Your task to perform on an android device: Empty the shopping cart on ebay.com. Search for "duracell triple a" on ebay.com, select the first entry, and add it to the cart. Image 0: 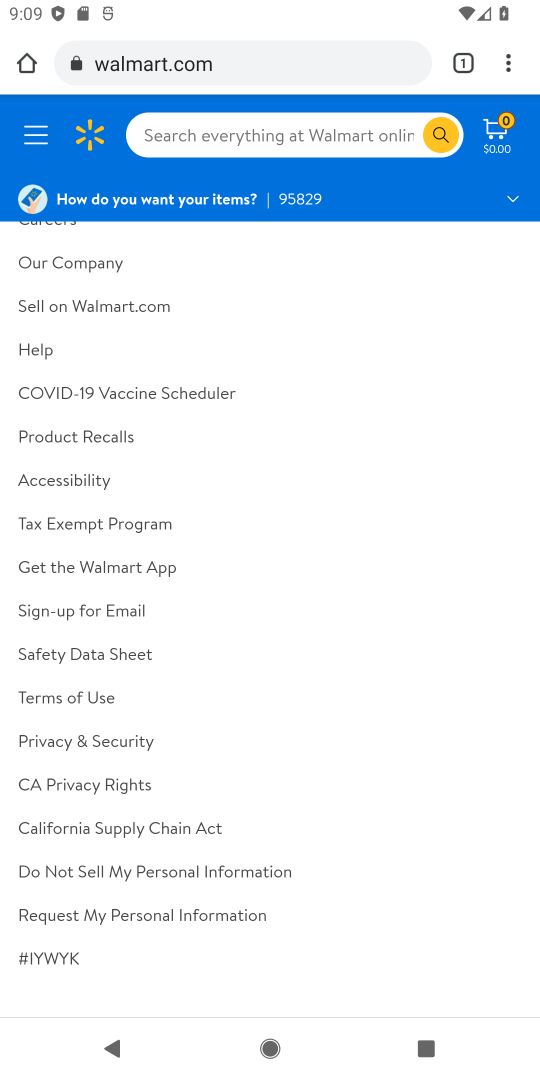
Step 0: click (256, 74)
Your task to perform on an android device: Empty the shopping cart on ebay.com. Search for "duracell triple a" on ebay.com, select the first entry, and add it to the cart. Image 1: 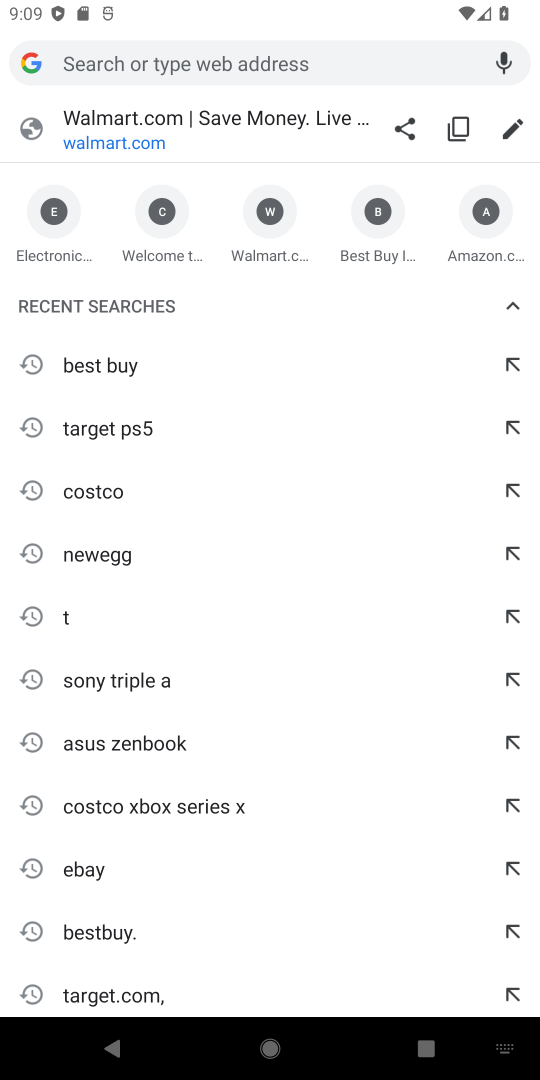
Step 1: type "ebay.com"
Your task to perform on an android device: Empty the shopping cart on ebay.com. Search for "duracell triple a" on ebay.com, select the first entry, and add it to the cart. Image 2: 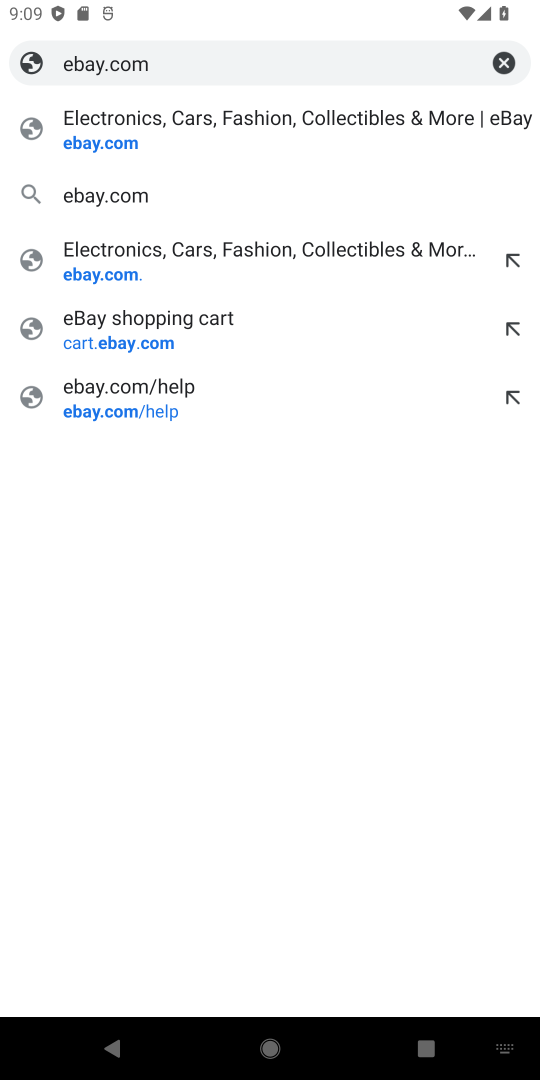
Step 2: click (167, 119)
Your task to perform on an android device: Empty the shopping cart on ebay.com. Search for "duracell triple a" on ebay.com, select the first entry, and add it to the cart. Image 3: 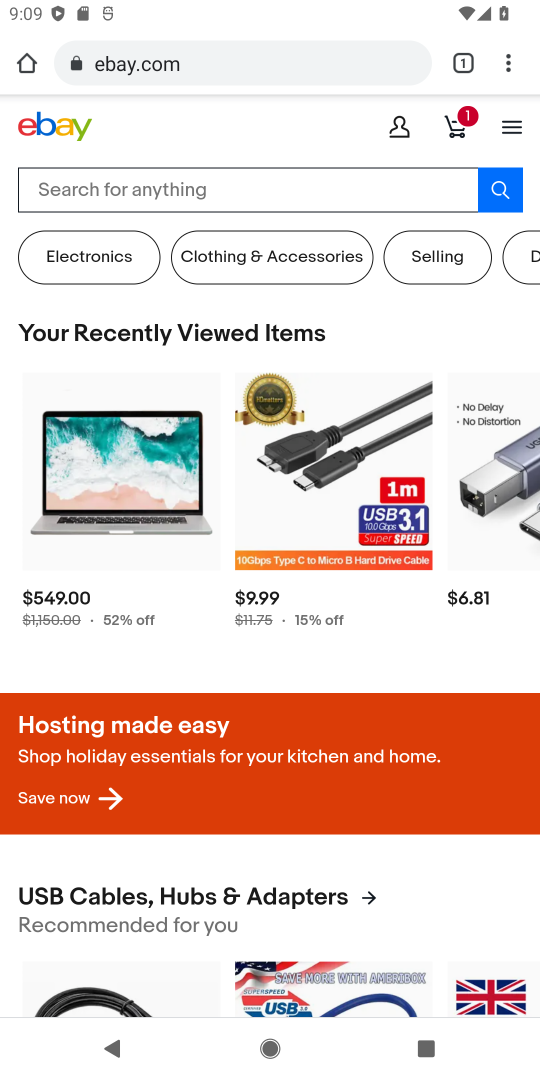
Step 3: click (185, 198)
Your task to perform on an android device: Empty the shopping cart on ebay.com. Search for "duracell triple a" on ebay.com, select the first entry, and add it to the cart. Image 4: 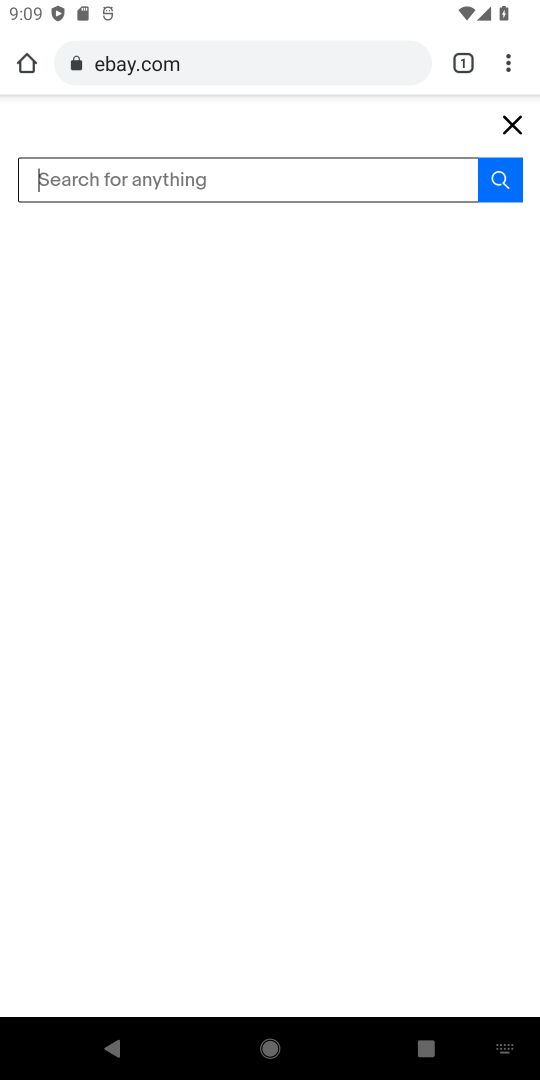
Step 4: click (130, 194)
Your task to perform on an android device: Empty the shopping cart on ebay.com. Search for "duracell triple a" on ebay.com, select the first entry, and add it to the cart. Image 5: 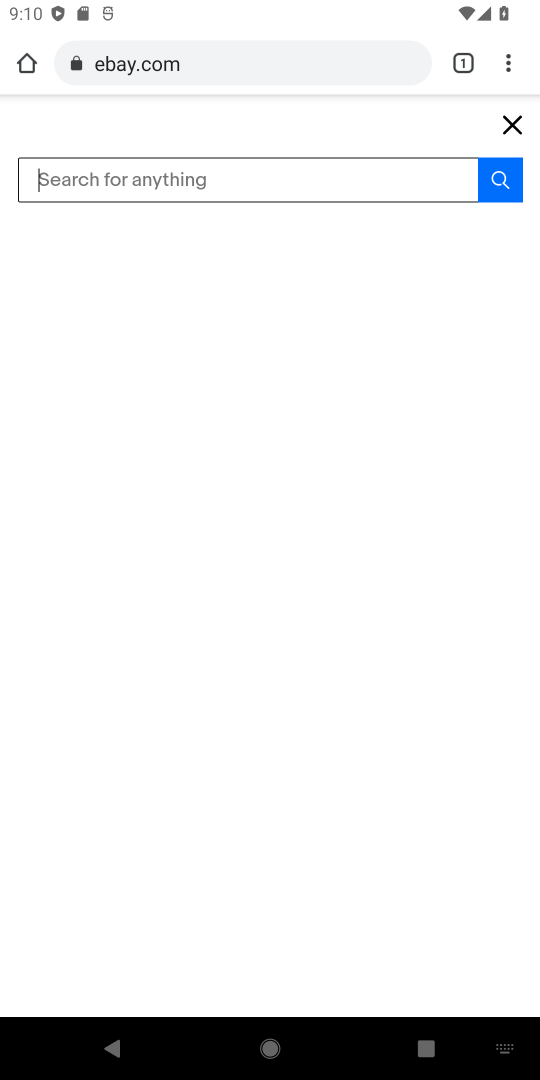
Step 5: type "duracell triple a"
Your task to perform on an android device: Empty the shopping cart on ebay.com. Search for "duracell triple a" on ebay.com, select the first entry, and add it to the cart. Image 6: 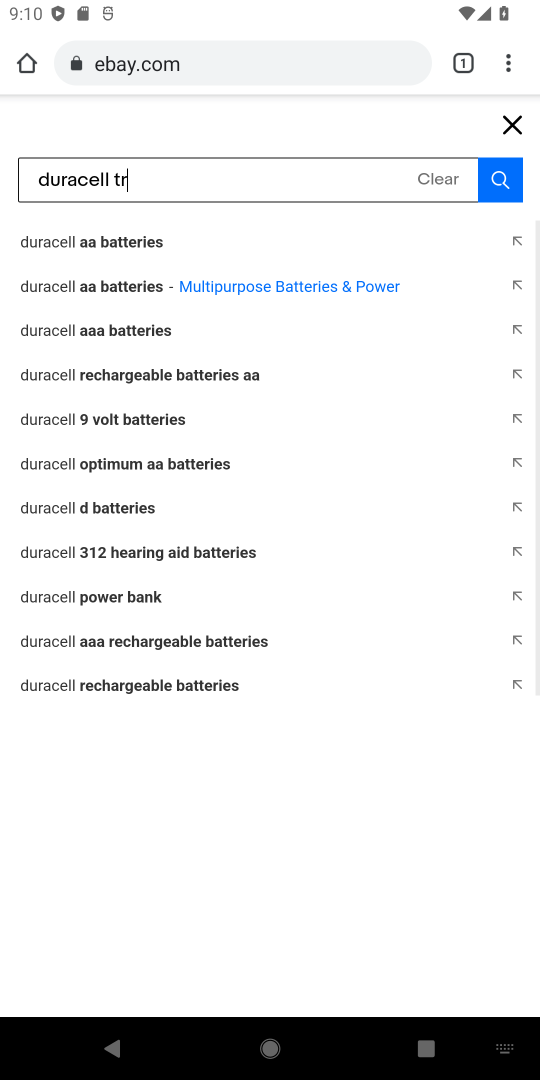
Step 6: type ""
Your task to perform on an android device: Empty the shopping cart on ebay.com. Search for "duracell triple a" on ebay.com, select the first entry, and add it to the cart. Image 7: 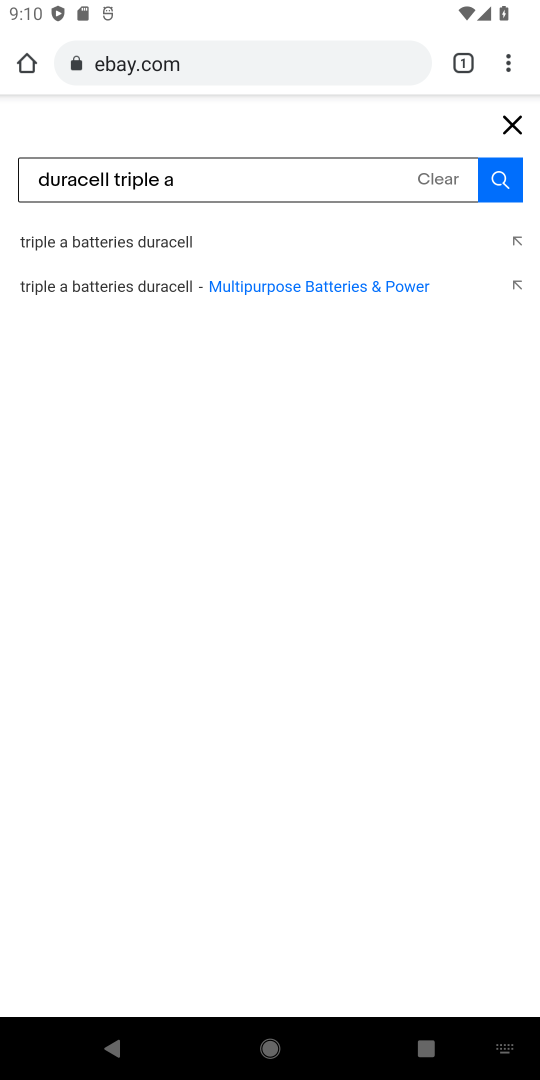
Step 7: click (222, 237)
Your task to perform on an android device: Empty the shopping cart on ebay.com. Search for "duracell triple a" on ebay.com, select the first entry, and add it to the cart. Image 8: 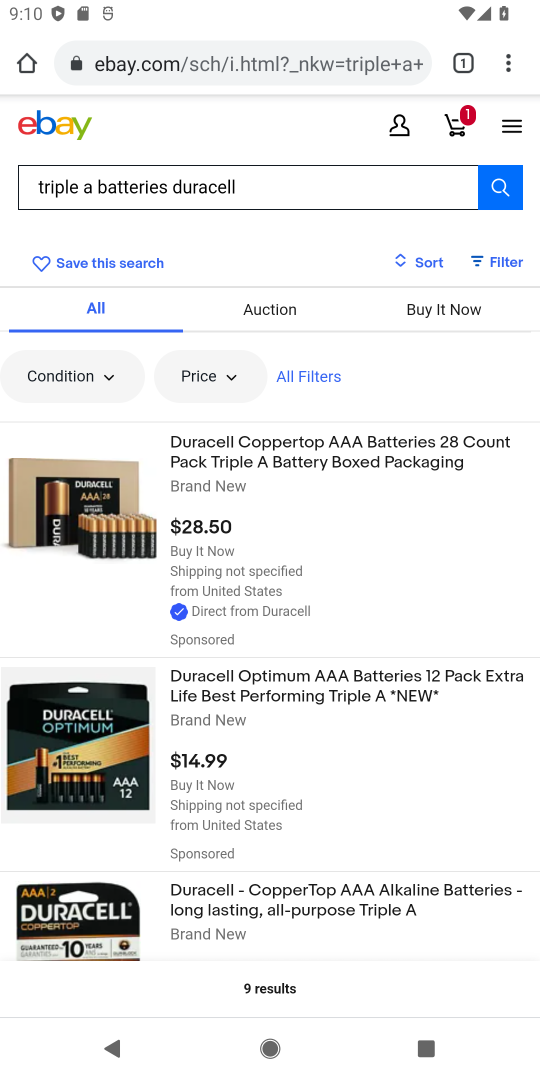
Step 8: click (241, 428)
Your task to perform on an android device: Empty the shopping cart on ebay.com. Search for "duracell triple a" on ebay.com, select the first entry, and add it to the cart. Image 9: 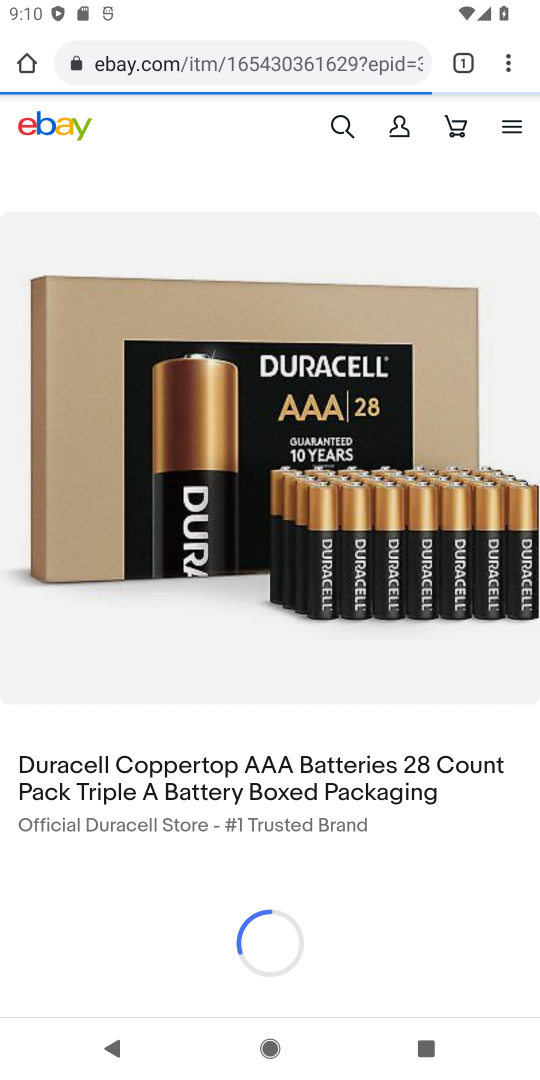
Step 9: click (256, 471)
Your task to perform on an android device: Empty the shopping cart on ebay.com. Search for "duracell triple a" on ebay.com, select the first entry, and add it to the cart. Image 10: 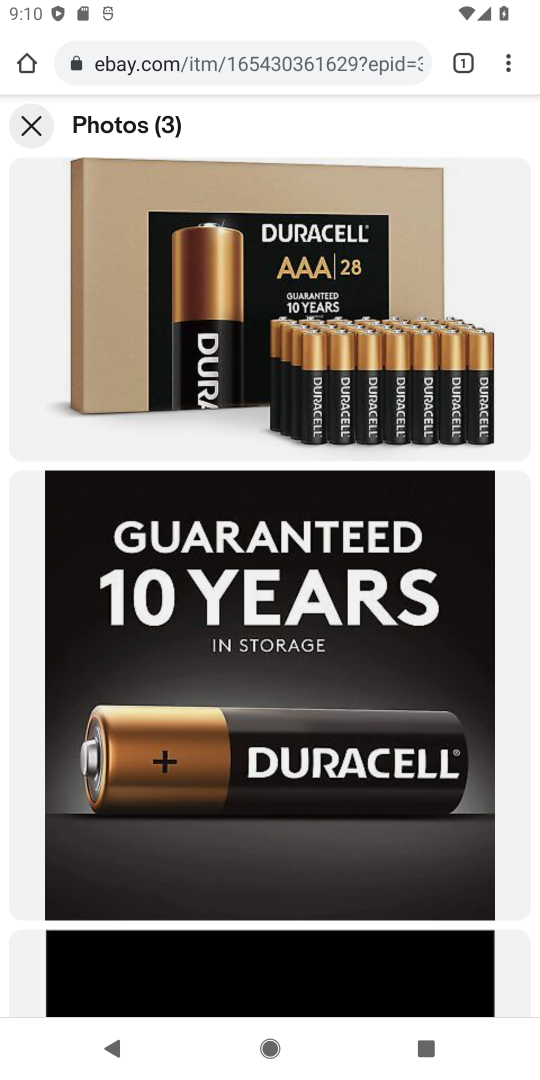
Step 10: drag from (391, 642) to (439, 366)
Your task to perform on an android device: Empty the shopping cart on ebay.com. Search for "duracell triple a" on ebay.com, select the first entry, and add it to the cart. Image 11: 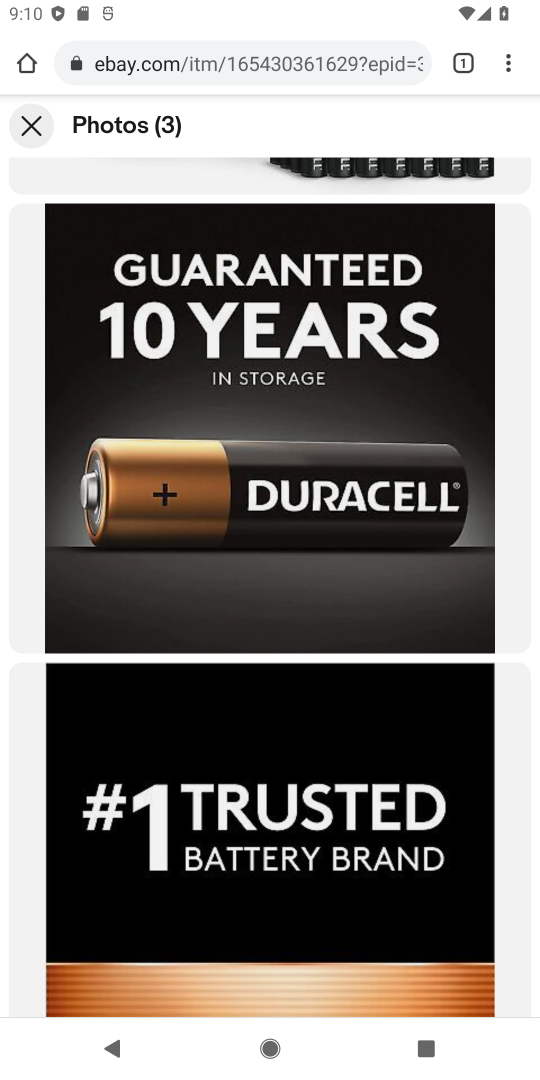
Step 11: drag from (406, 406) to (350, 860)
Your task to perform on an android device: Empty the shopping cart on ebay.com. Search for "duracell triple a" on ebay.com, select the first entry, and add it to the cart. Image 12: 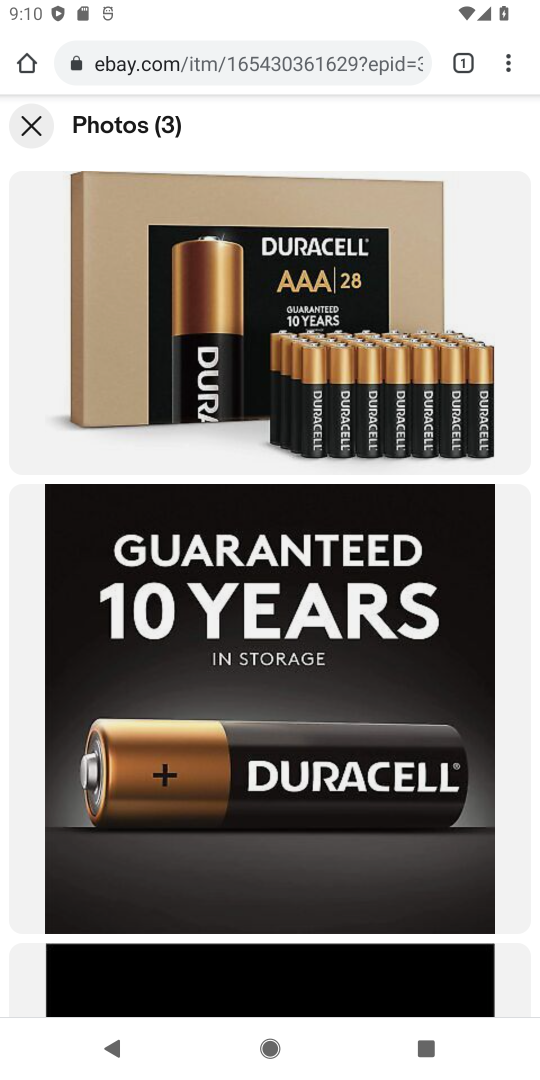
Step 12: drag from (324, 459) to (278, 865)
Your task to perform on an android device: Empty the shopping cart on ebay.com. Search for "duracell triple a" on ebay.com, select the first entry, and add it to the cart. Image 13: 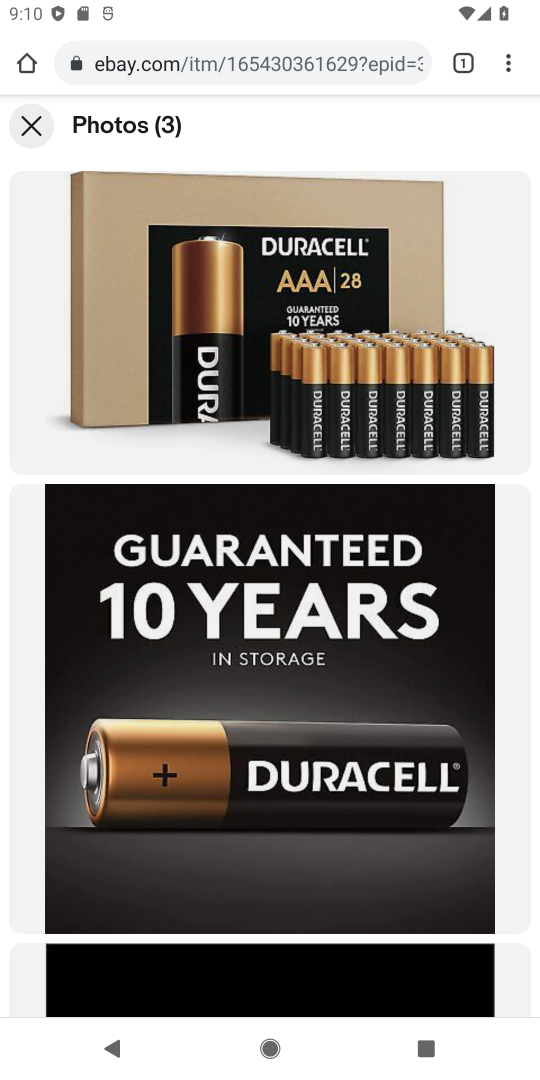
Step 13: drag from (300, 487) to (287, 850)
Your task to perform on an android device: Empty the shopping cart on ebay.com. Search for "duracell triple a" on ebay.com, select the first entry, and add it to the cart. Image 14: 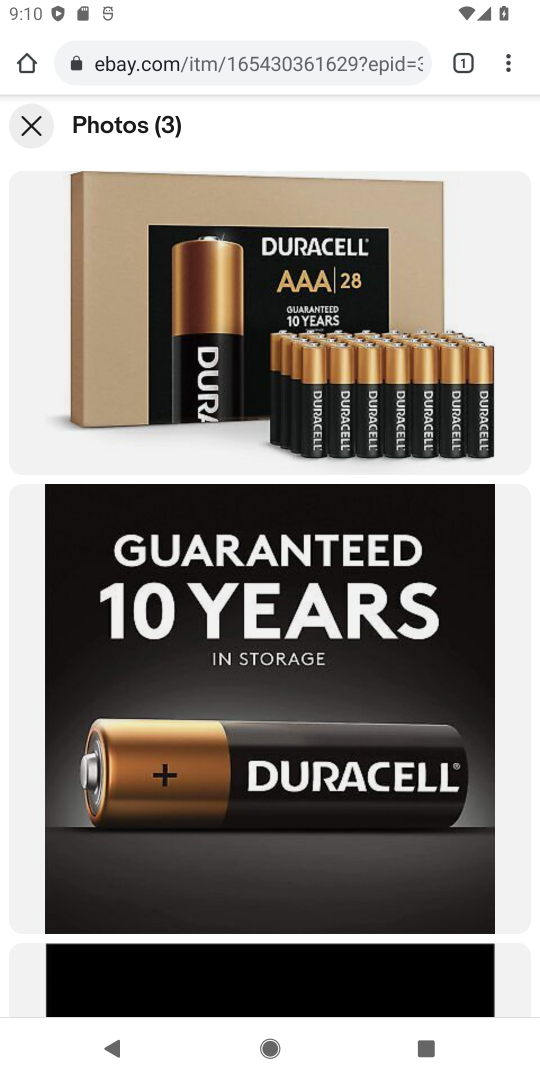
Step 14: drag from (295, 606) to (292, 784)
Your task to perform on an android device: Empty the shopping cart on ebay.com. Search for "duracell triple a" on ebay.com, select the first entry, and add it to the cart. Image 15: 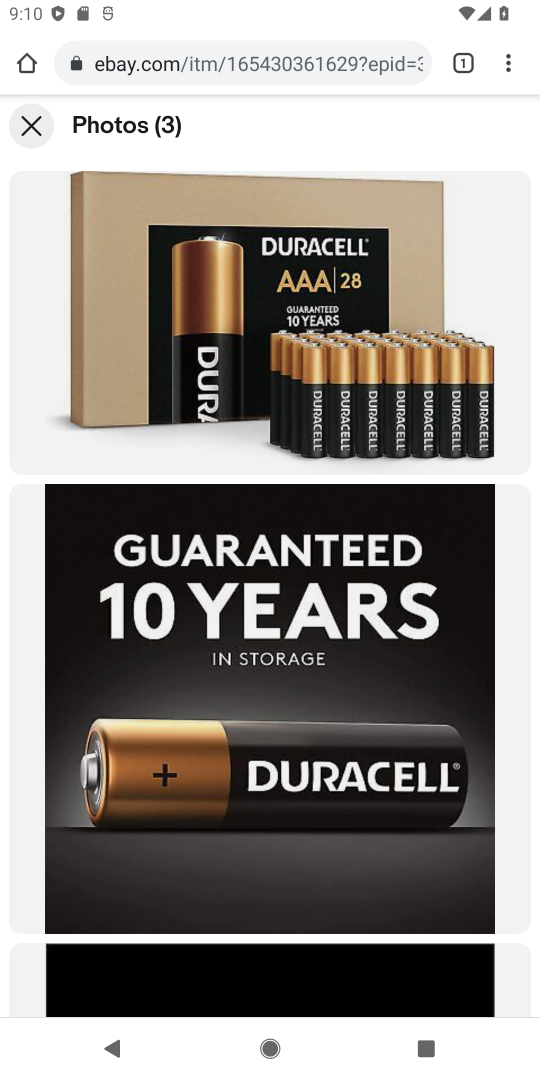
Step 15: drag from (331, 599) to (323, 743)
Your task to perform on an android device: Empty the shopping cart on ebay.com. Search for "duracell triple a" on ebay.com, select the first entry, and add it to the cart. Image 16: 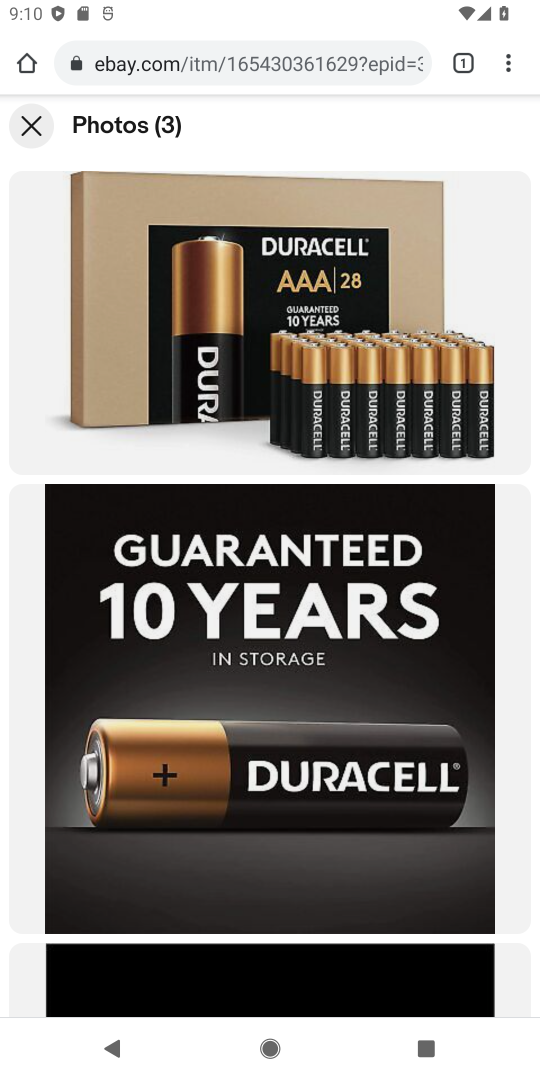
Step 16: click (40, 125)
Your task to perform on an android device: Empty the shopping cart on ebay.com. Search for "duracell triple a" on ebay.com, select the first entry, and add it to the cart. Image 17: 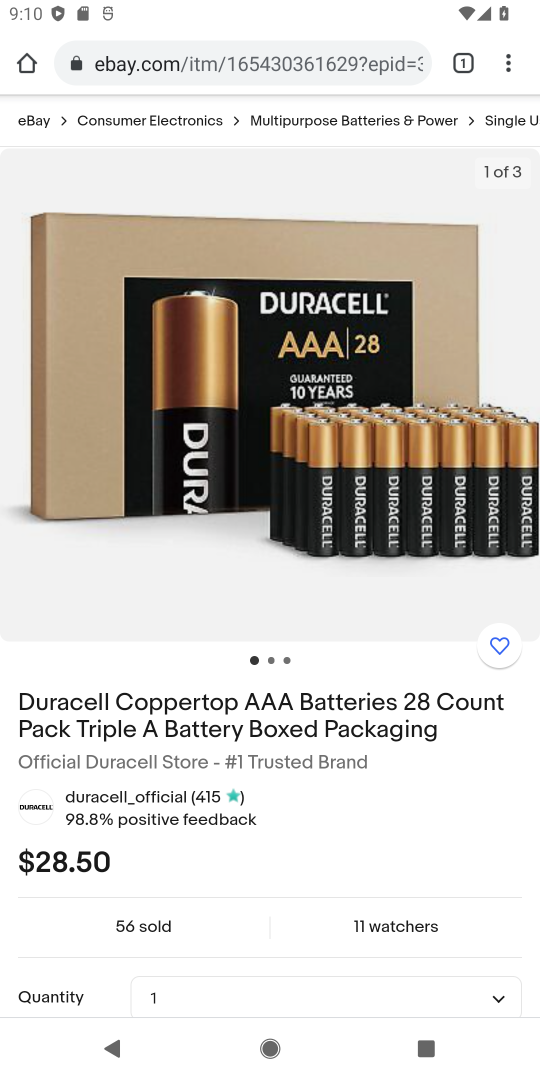
Step 17: drag from (210, 754) to (298, 349)
Your task to perform on an android device: Empty the shopping cart on ebay.com. Search for "duracell triple a" on ebay.com, select the first entry, and add it to the cart. Image 18: 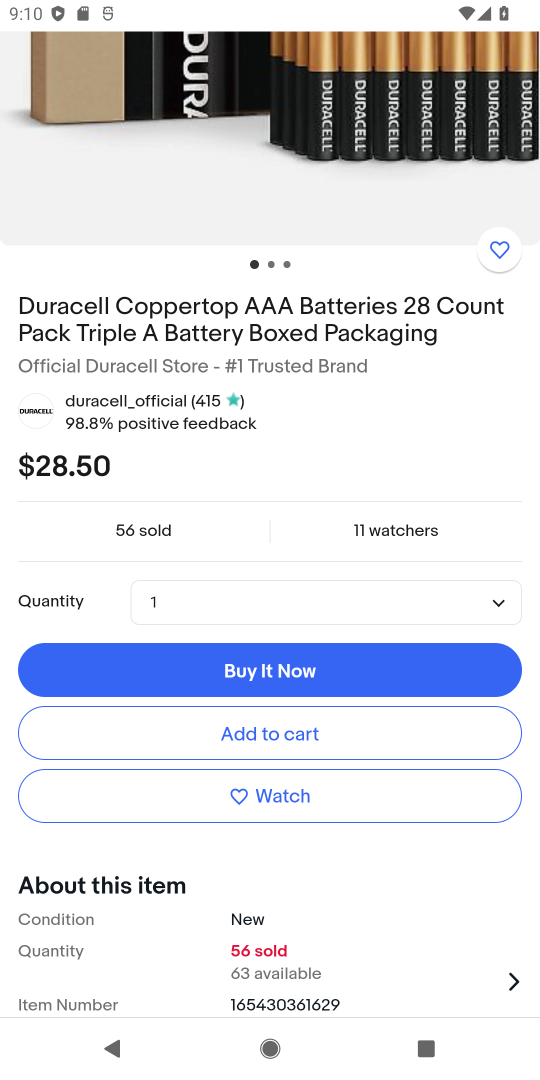
Step 18: click (208, 796)
Your task to perform on an android device: Empty the shopping cart on ebay.com. Search for "duracell triple a" on ebay.com, select the first entry, and add it to the cart. Image 19: 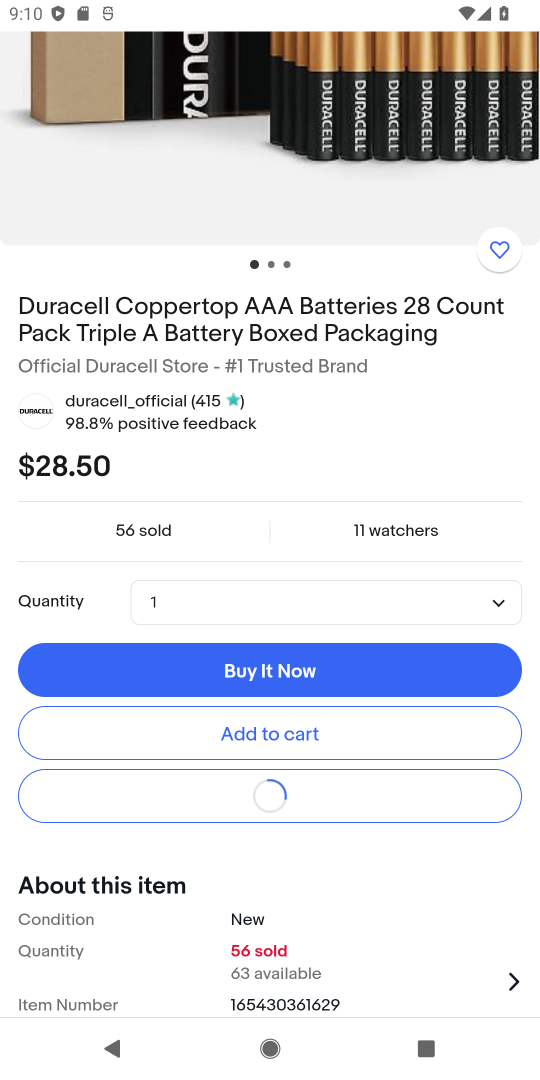
Step 19: click (220, 724)
Your task to perform on an android device: Empty the shopping cart on ebay.com. Search for "duracell triple a" on ebay.com, select the first entry, and add it to the cart. Image 20: 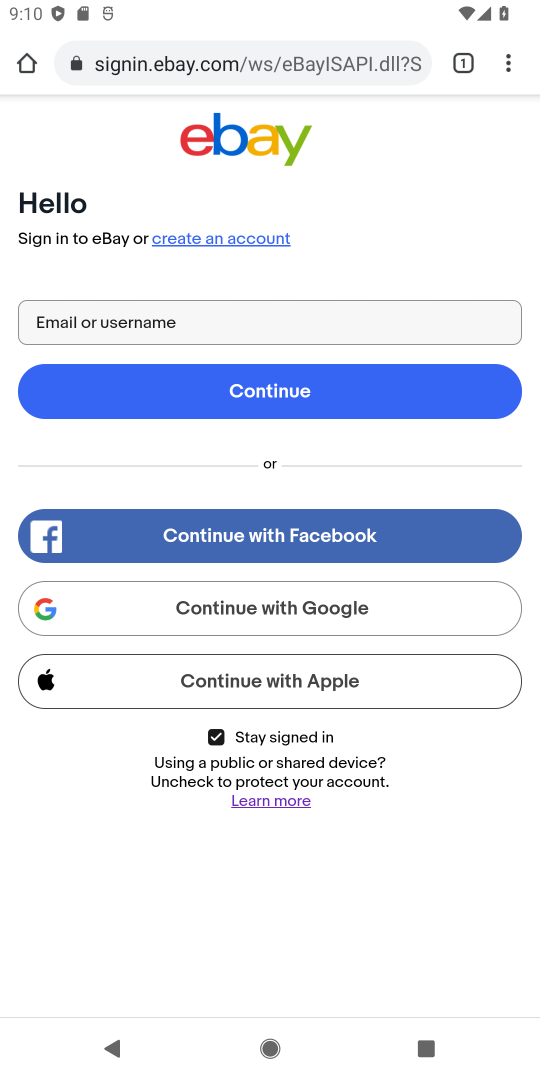
Step 20: click (241, 614)
Your task to perform on an android device: Empty the shopping cart on ebay.com. Search for "duracell triple a" on ebay.com, select the first entry, and add it to the cart. Image 21: 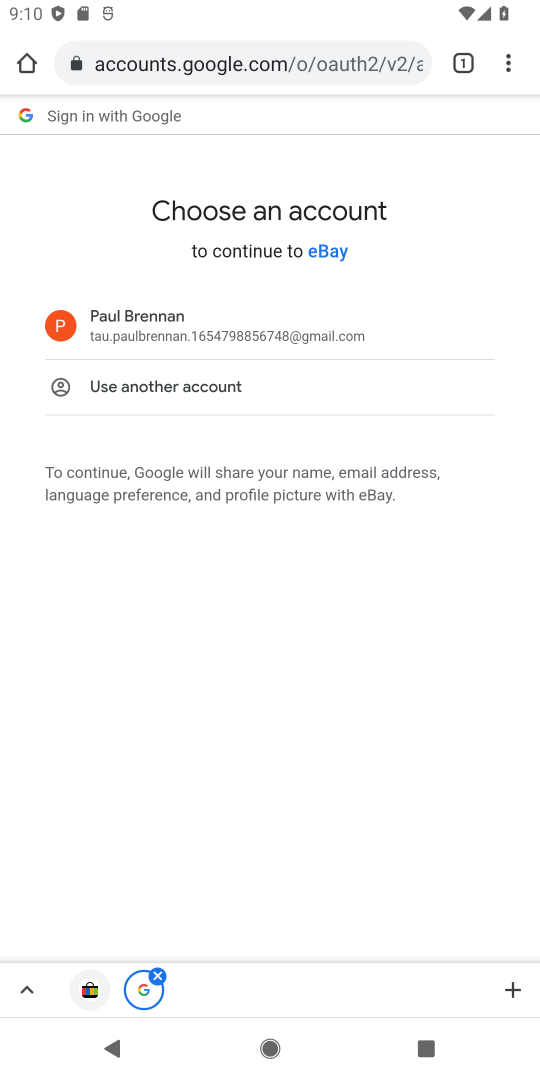
Step 21: click (256, 326)
Your task to perform on an android device: Empty the shopping cart on ebay.com. Search for "duracell triple a" on ebay.com, select the first entry, and add it to the cart. Image 22: 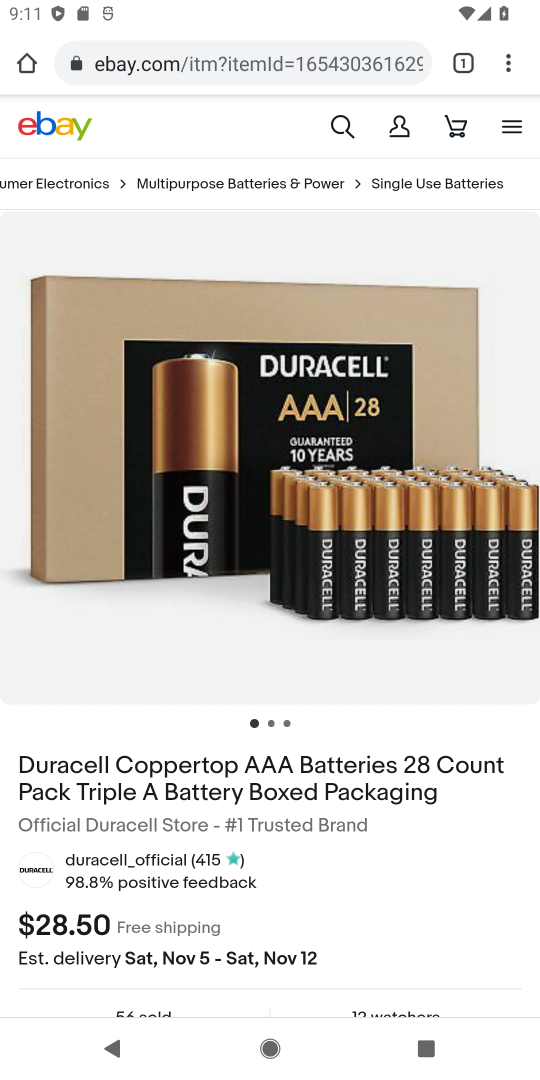
Step 22: click (467, 135)
Your task to perform on an android device: Empty the shopping cart on ebay.com. Search for "duracell triple a" on ebay.com, select the first entry, and add it to the cart. Image 23: 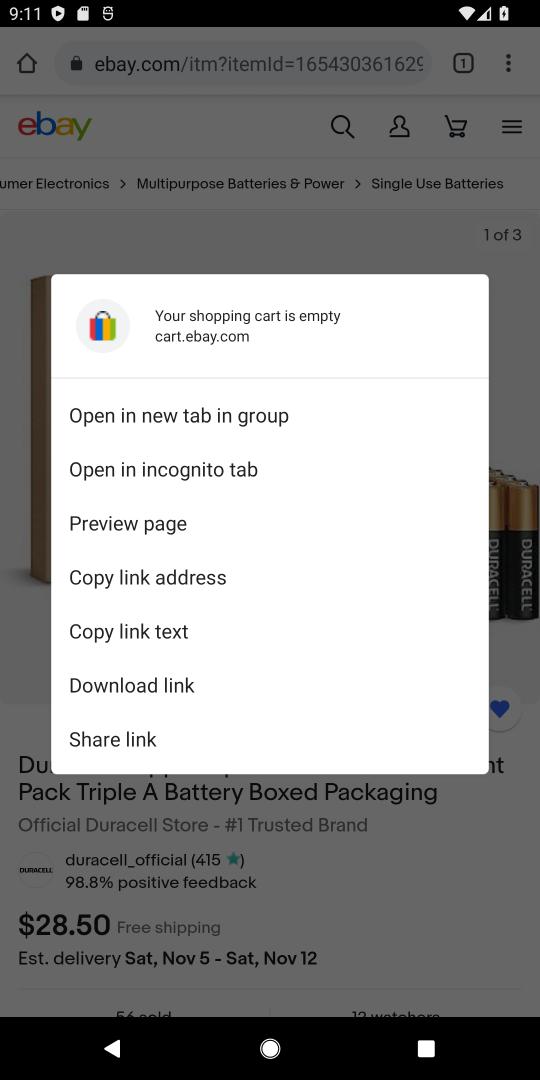
Step 23: click (408, 158)
Your task to perform on an android device: Empty the shopping cart on ebay.com. Search for "duracell triple a" on ebay.com, select the first entry, and add it to the cart. Image 24: 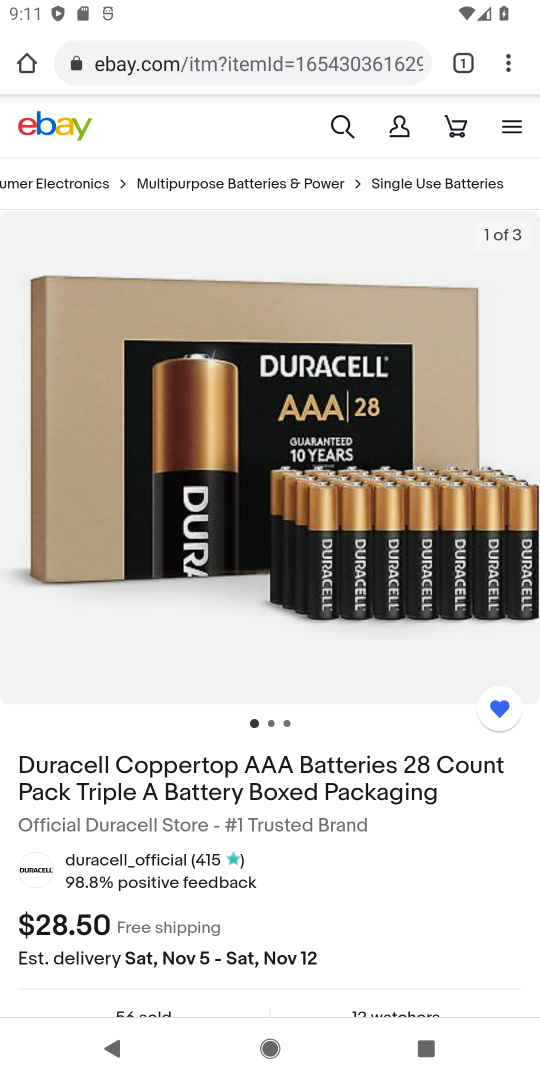
Step 24: click (453, 129)
Your task to perform on an android device: Empty the shopping cart on ebay.com. Search for "duracell triple a" on ebay.com, select the first entry, and add it to the cart. Image 25: 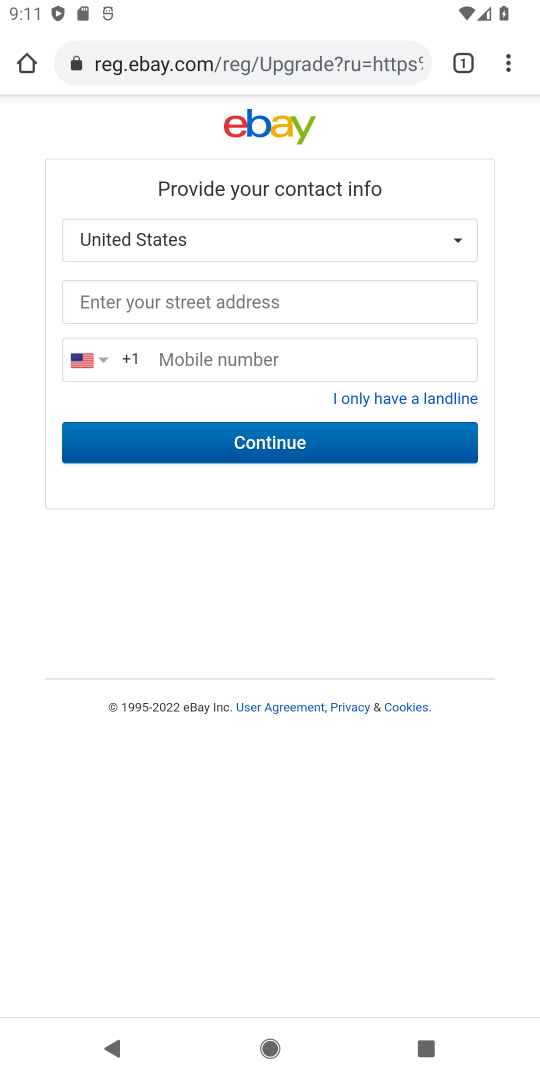
Step 25: task complete